Your task to perform on an android device: What's on my calendar today? Image 0: 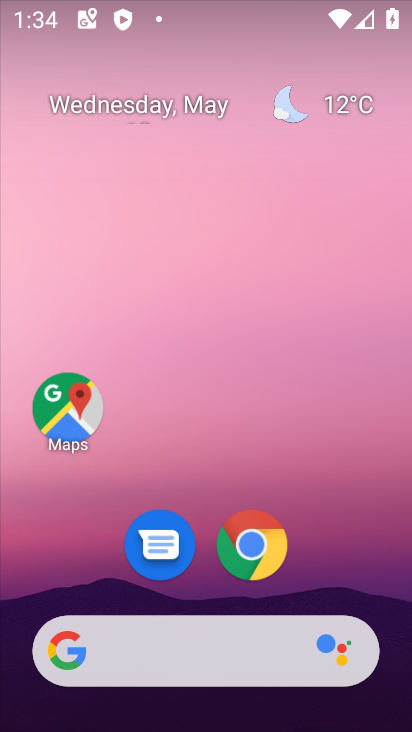
Step 0: drag from (386, 588) to (323, 61)
Your task to perform on an android device: What's on my calendar today? Image 1: 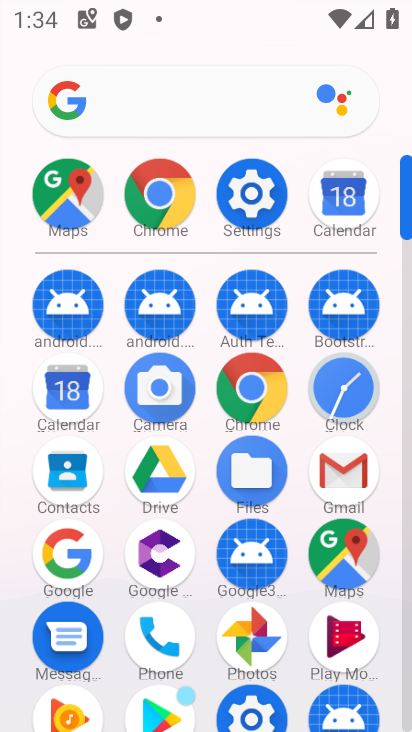
Step 1: click (56, 413)
Your task to perform on an android device: What's on my calendar today? Image 2: 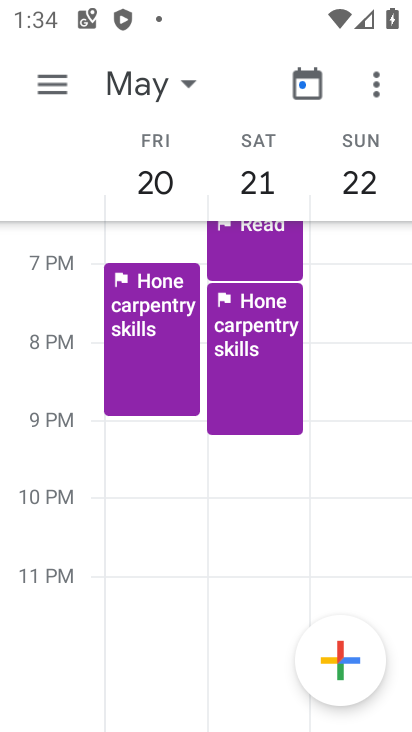
Step 2: click (143, 83)
Your task to perform on an android device: What's on my calendar today? Image 3: 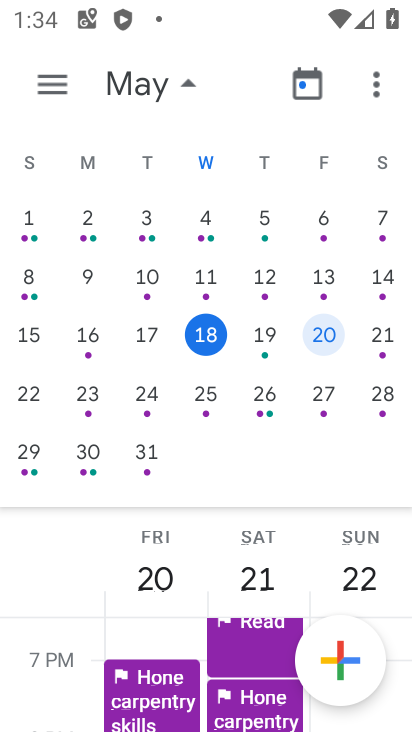
Step 3: click (216, 339)
Your task to perform on an android device: What's on my calendar today? Image 4: 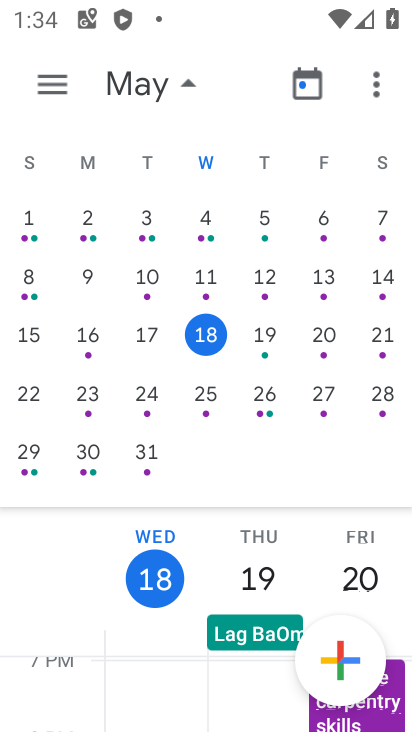
Step 4: click (54, 90)
Your task to perform on an android device: What's on my calendar today? Image 5: 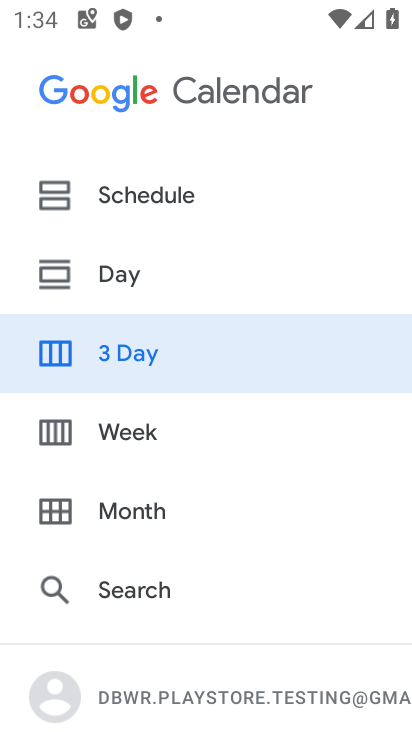
Step 5: click (128, 285)
Your task to perform on an android device: What's on my calendar today? Image 6: 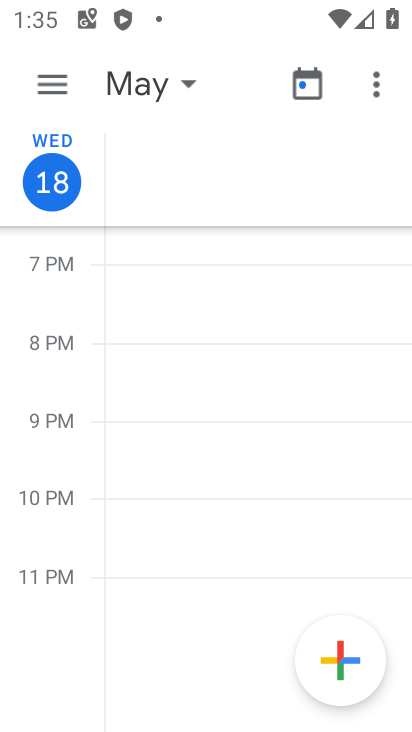
Step 6: task complete